Your task to perform on an android device: Open Youtube and go to "Your channel" Image 0: 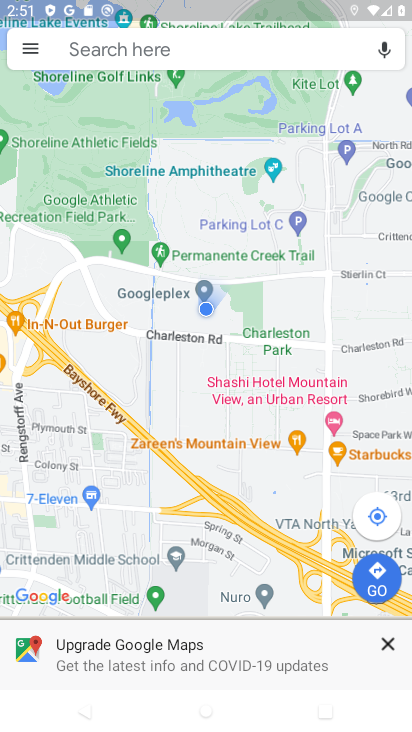
Step 0: press home button
Your task to perform on an android device: Open Youtube and go to "Your channel" Image 1: 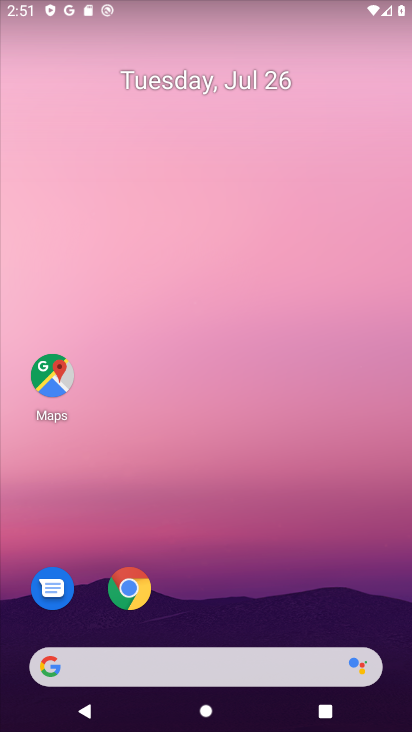
Step 1: drag from (324, 618) to (263, 40)
Your task to perform on an android device: Open Youtube and go to "Your channel" Image 2: 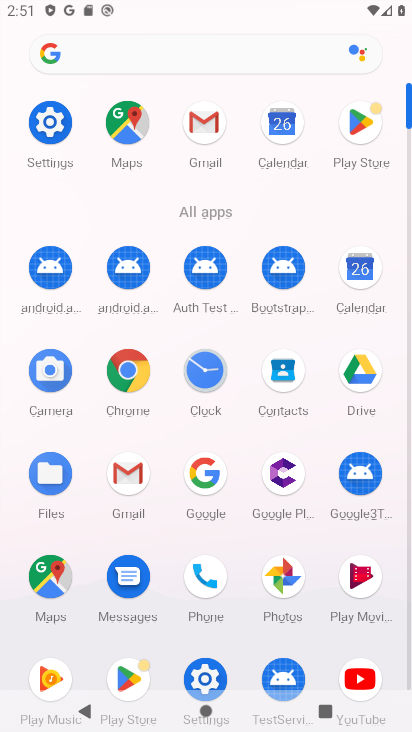
Step 2: click (365, 676)
Your task to perform on an android device: Open Youtube and go to "Your channel" Image 3: 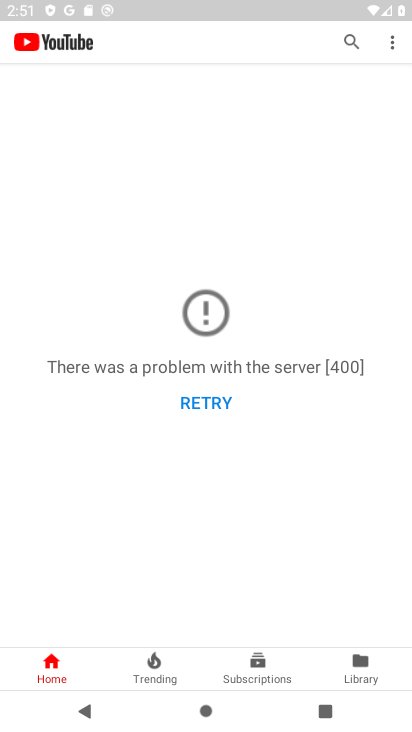
Step 3: click (388, 41)
Your task to perform on an android device: Open Youtube and go to "Your channel" Image 4: 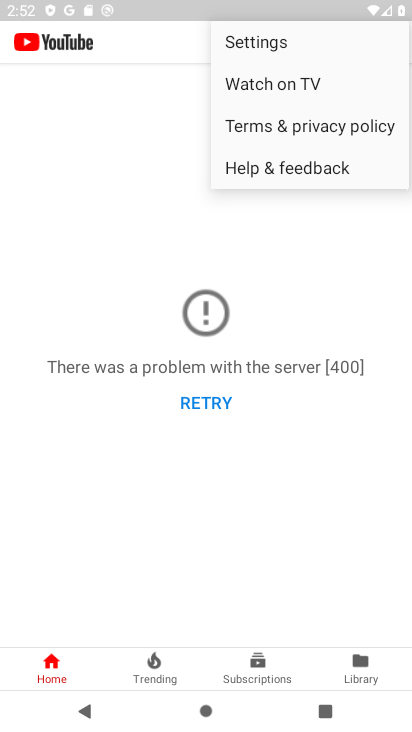
Step 4: task complete